Your task to perform on an android device: Open settings on Google Maps Image 0: 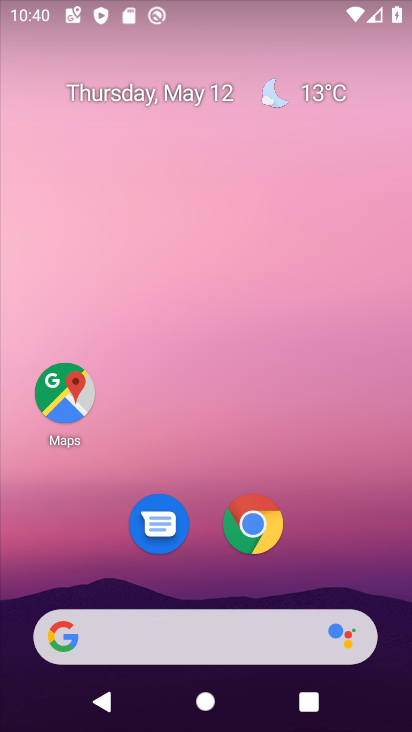
Step 0: click (69, 387)
Your task to perform on an android device: Open settings on Google Maps Image 1: 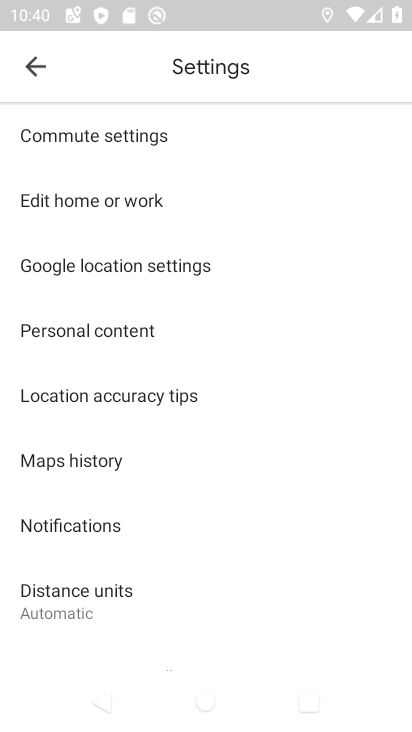
Step 1: task complete